Your task to perform on an android device: turn vacation reply on in the gmail app Image 0: 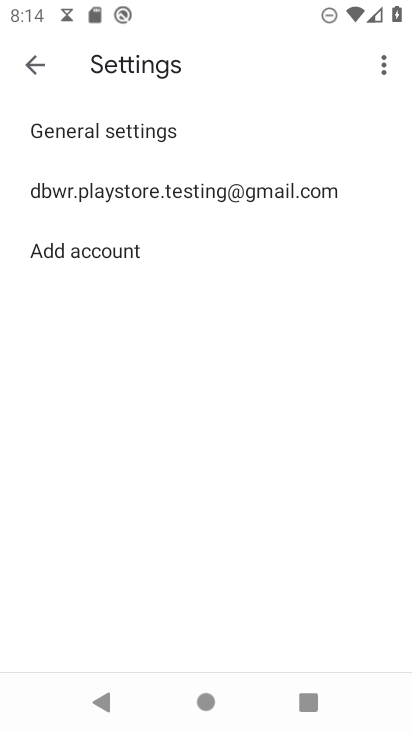
Step 0: press home button
Your task to perform on an android device: turn vacation reply on in the gmail app Image 1: 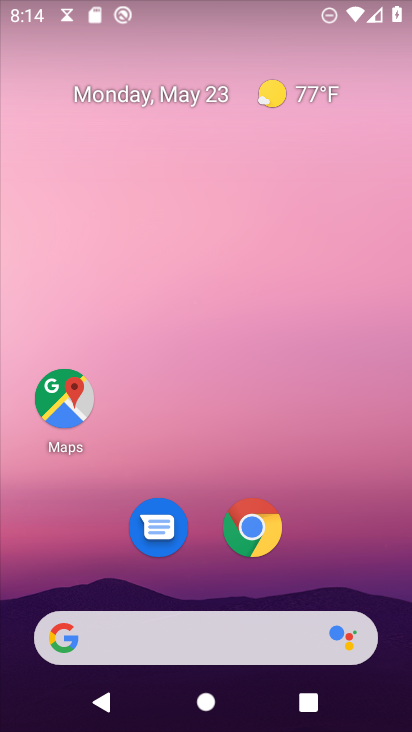
Step 1: drag from (239, 636) to (150, 0)
Your task to perform on an android device: turn vacation reply on in the gmail app Image 2: 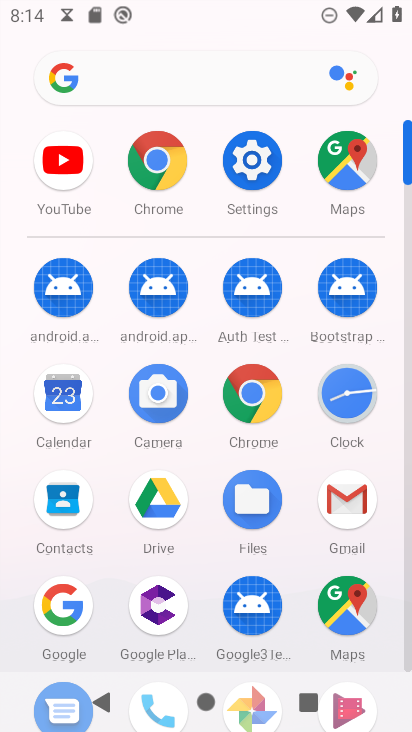
Step 2: click (334, 499)
Your task to perform on an android device: turn vacation reply on in the gmail app Image 3: 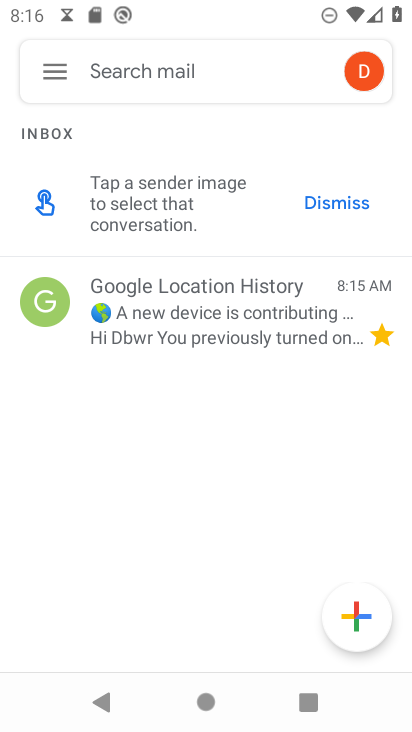
Step 3: click (313, 195)
Your task to perform on an android device: turn vacation reply on in the gmail app Image 4: 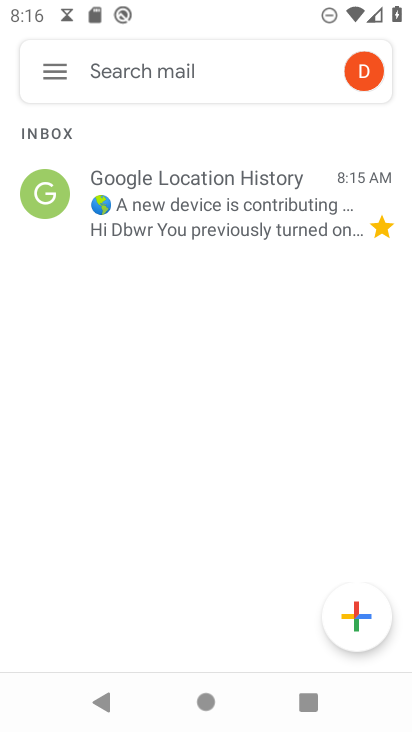
Step 4: click (40, 60)
Your task to perform on an android device: turn vacation reply on in the gmail app Image 5: 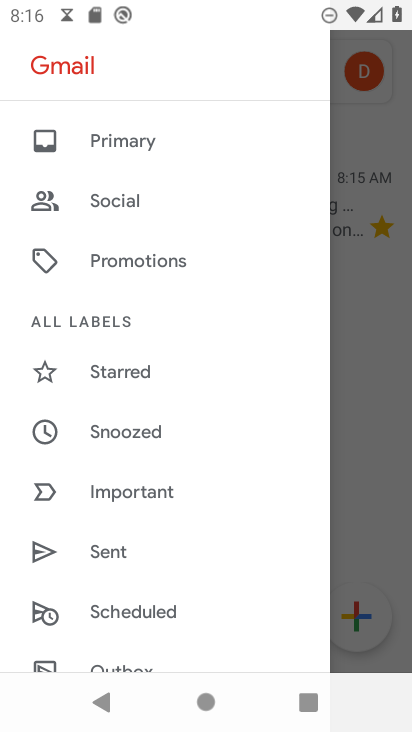
Step 5: drag from (212, 550) to (327, 241)
Your task to perform on an android device: turn vacation reply on in the gmail app Image 6: 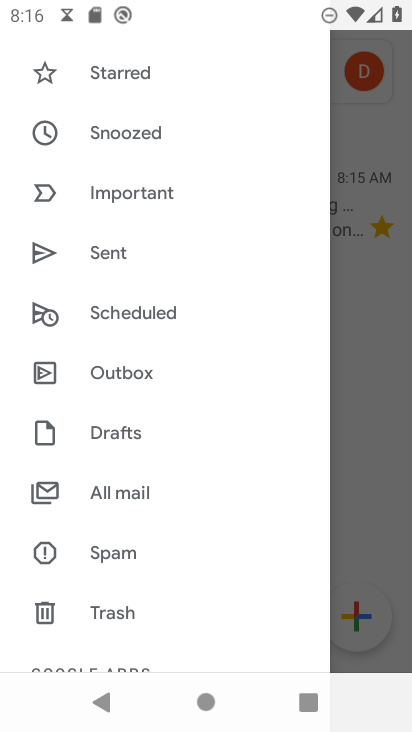
Step 6: drag from (150, 597) to (199, 279)
Your task to perform on an android device: turn vacation reply on in the gmail app Image 7: 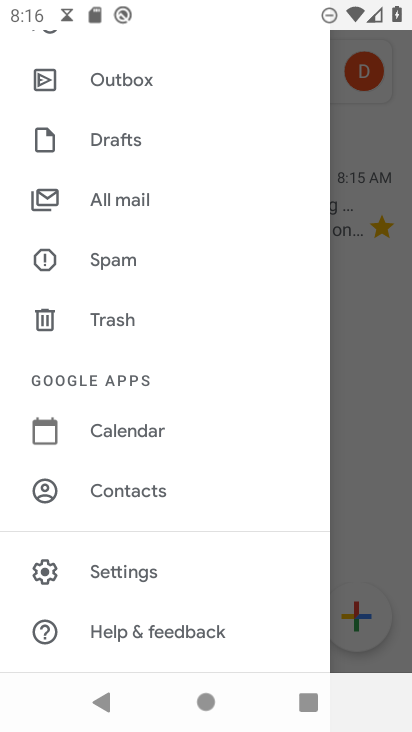
Step 7: click (142, 575)
Your task to perform on an android device: turn vacation reply on in the gmail app Image 8: 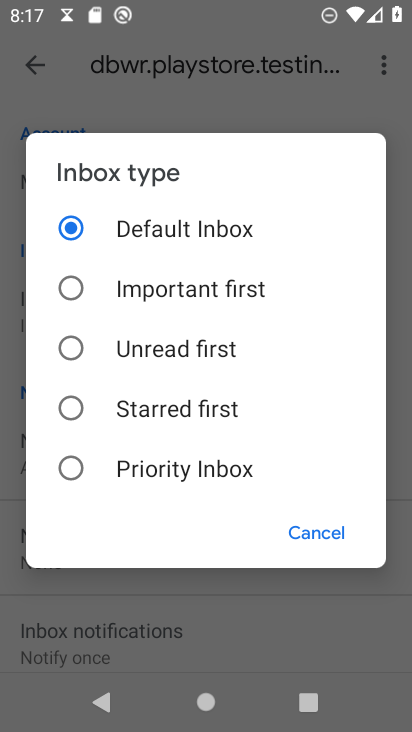
Step 8: click (332, 543)
Your task to perform on an android device: turn vacation reply on in the gmail app Image 9: 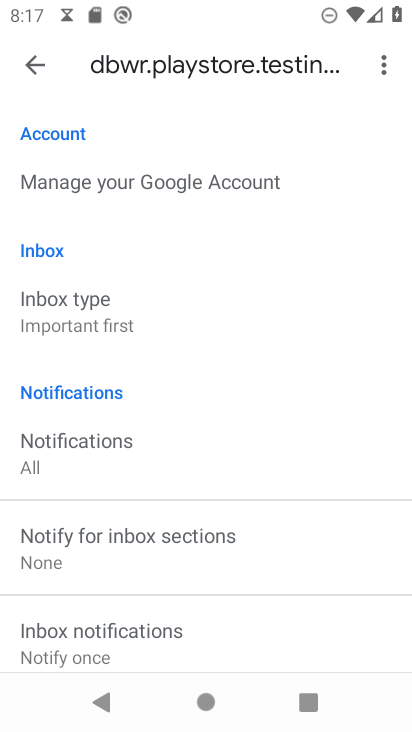
Step 9: drag from (159, 606) to (225, 311)
Your task to perform on an android device: turn vacation reply on in the gmail app Image 10: 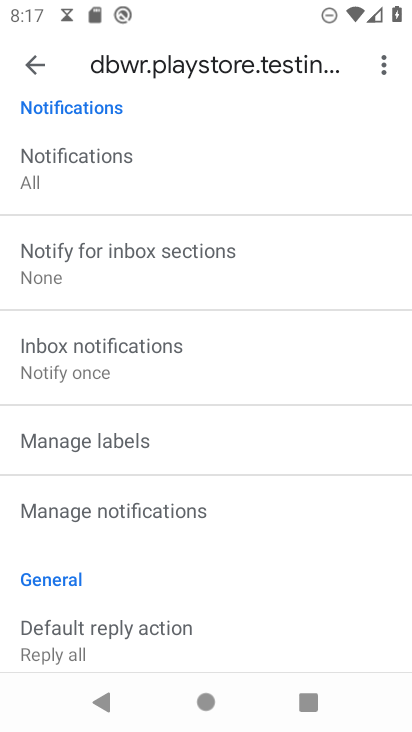
Step 10: drag from (110, 216) to (189, 640)
Your task to perform on an android device: turn vacation reply on in the gmail app Image 11: 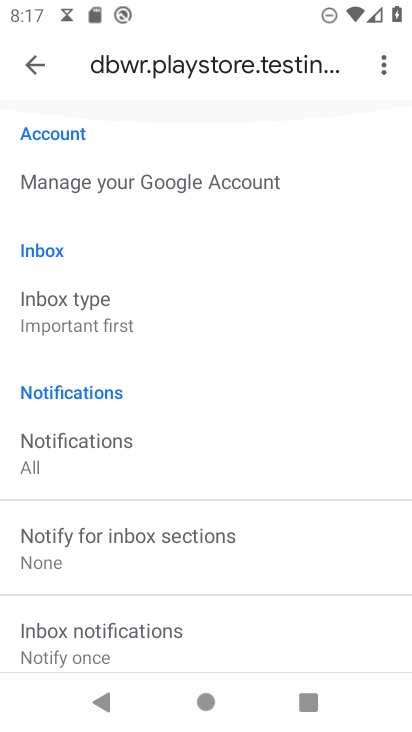
Step 11: drag from (184, 639) to (296, 164)
Your task to perform on an android device: turn vacation reply on in the gmail app Image 12: 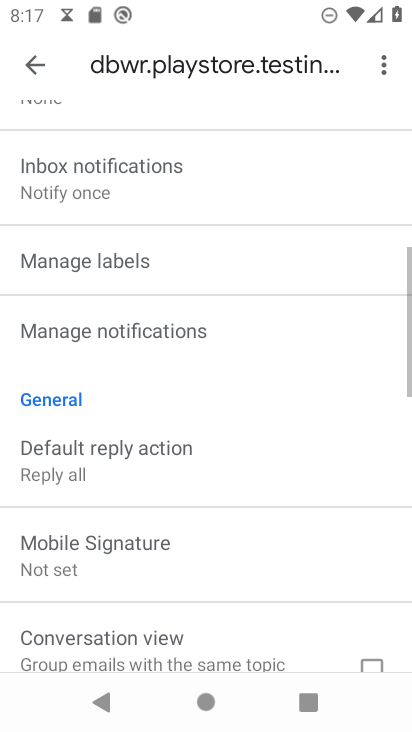
Step 12: drag from (206, 531) to (289, 177)
Your task to perform on an android device: turn vacation reply on in the gmail app Image 13: 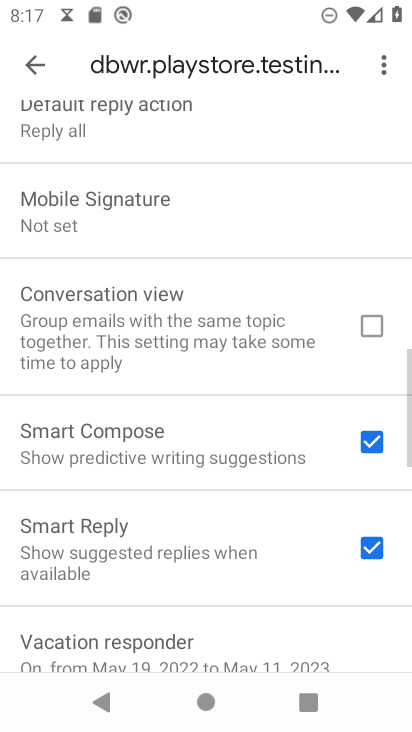
Step 13: drag from (175, 537) to (215, 313)
Your task to perform on an android device: turn vacation reply on in the gmail app Image 14: 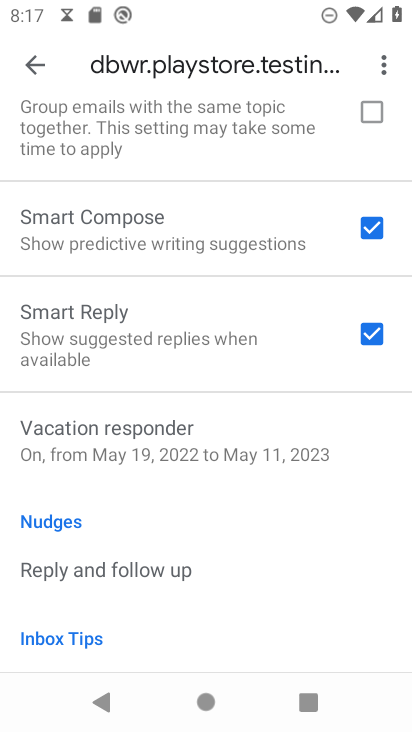
Step 14: click (157, 442)
Your task to perform on an android device: turn vacation reply on in the gmail app Image 15: 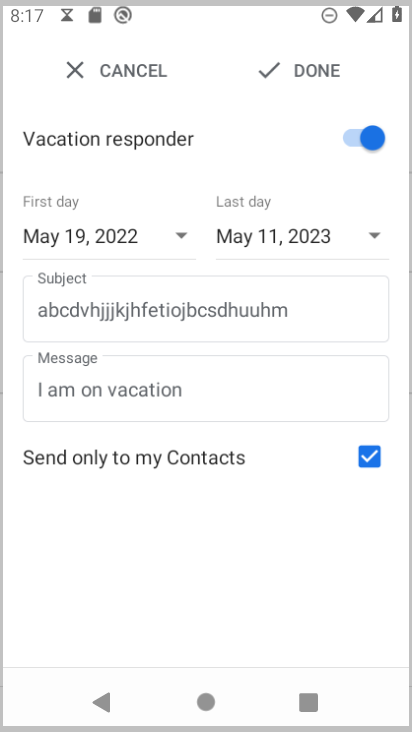
Step 15: task complete